Your task to perform on an android device: Open battery settings Image 0: 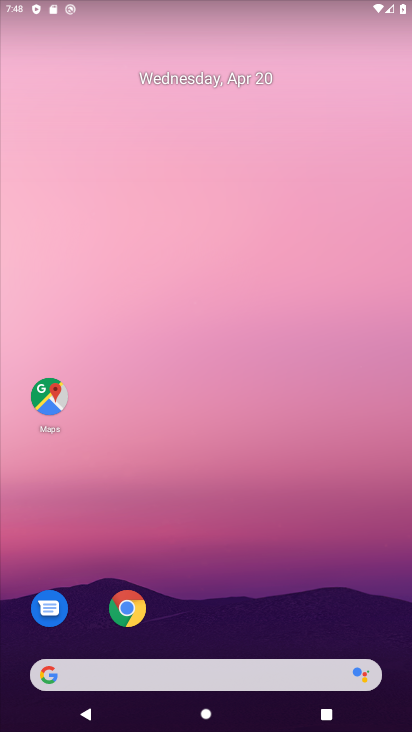
Step 0: drag from (158, 631) to (156, 234)
Your task to perform on an android device: Open battery settings Image 1: 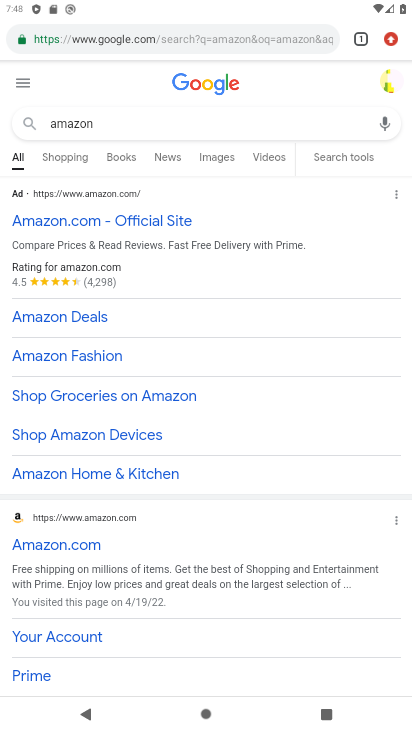
Step 1: press home button
Your task to perform on an android device: Open battery settings Image 2: 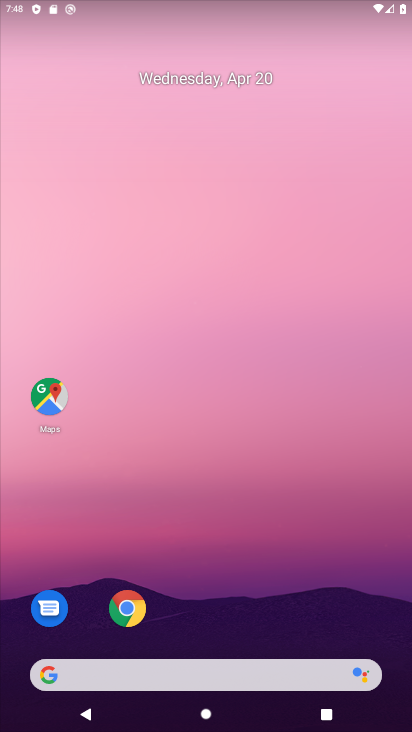
Step 2: drag from (174, 641) to (305, 77)
Your task to perform on an android device: Open battery settings Image 3: 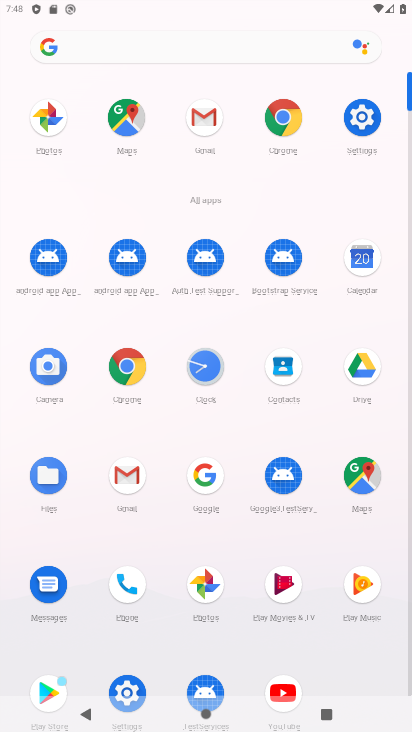
Step 3: click (357, 123)
Your task to perform on an android device: Open battery settings Image 4: 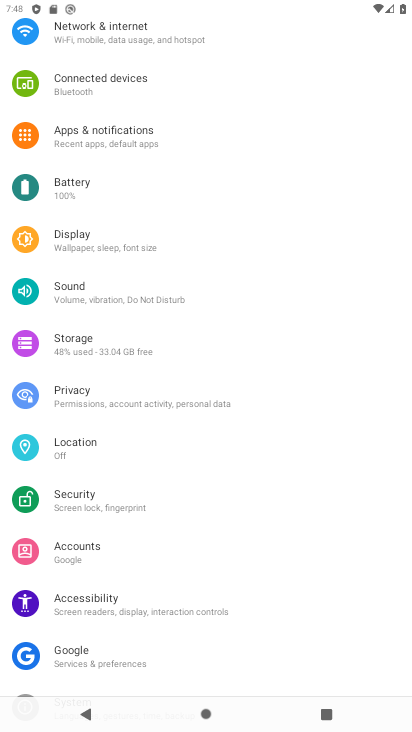
Step 4: click (73, 186)
Your task to perform on an android device: Open battery settings Image 5: 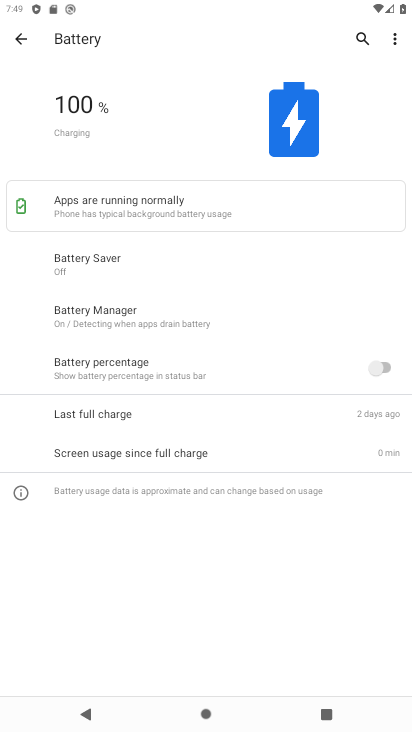
Step 5: task complete